Your task to perform on an android device: add a contact in the contacts app Image 0: 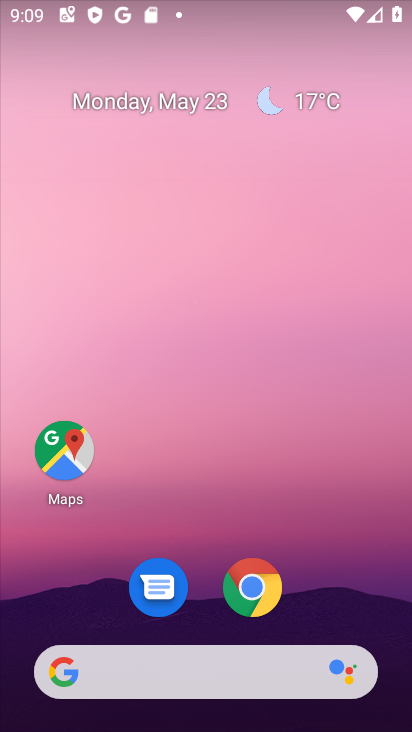
Step 0: drag from (241, 511) to (349, 26)
Your task to perform on an android device: add a contact in the contacts app Image 1: 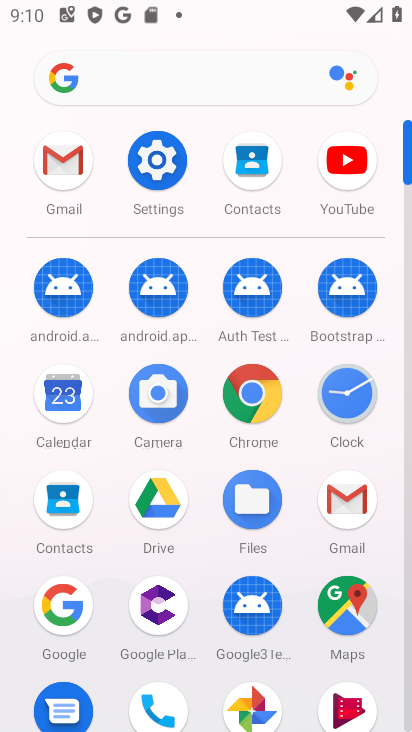
Step 1: click (252, 169)
Your task to perform on an android device: add a contact in the contacts app Image 2: 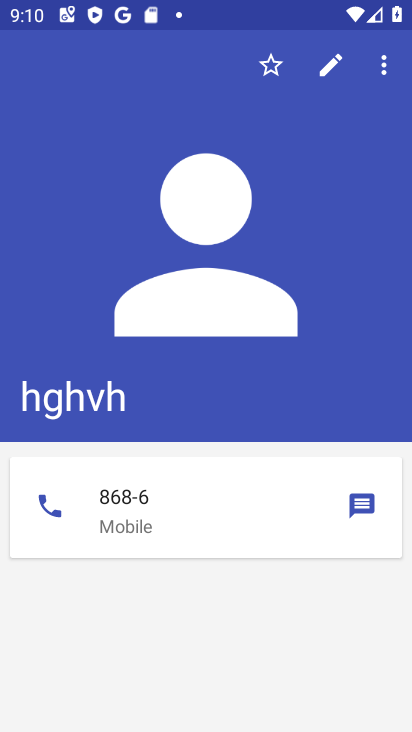
Step 2: press back button
Your task to perform on an android device: add a contact in the contacts app Image 3: 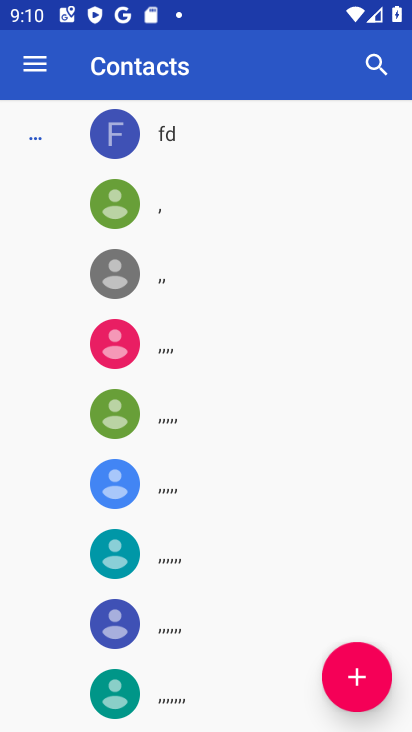
Step 3: click (350, 690)
Your task to perform on an android device: add a contact in the contacts app Image 4: 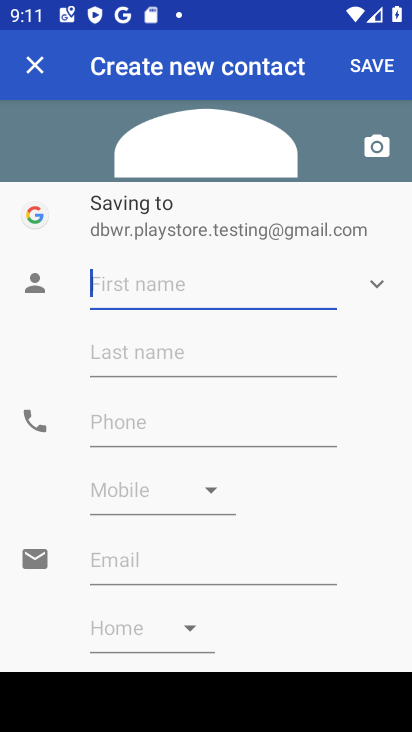
Step 4: type "gbgb"
Your task to perform on an android device: add a contact in the contacts app Image 5: 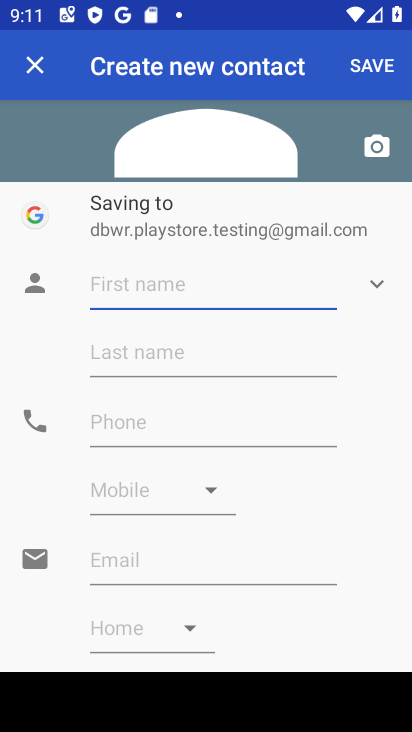
Step 5: click (118, 428)
Your task to perform on an android device: add a contact in the contacts app Image 6: 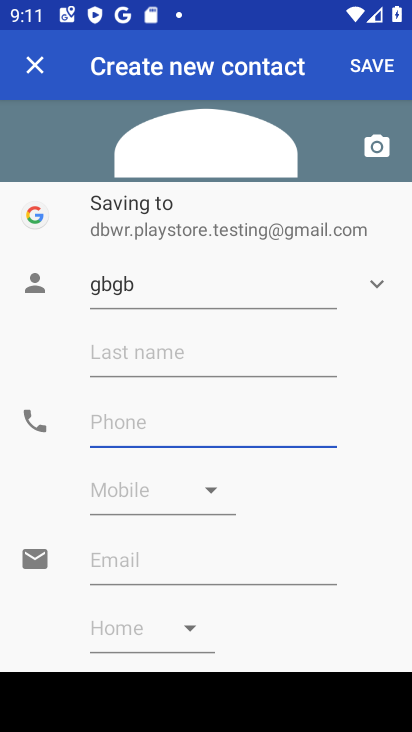
Step 6: type "676767"
Your task to perform on an android device: add a contact in the contacts app Image 7: 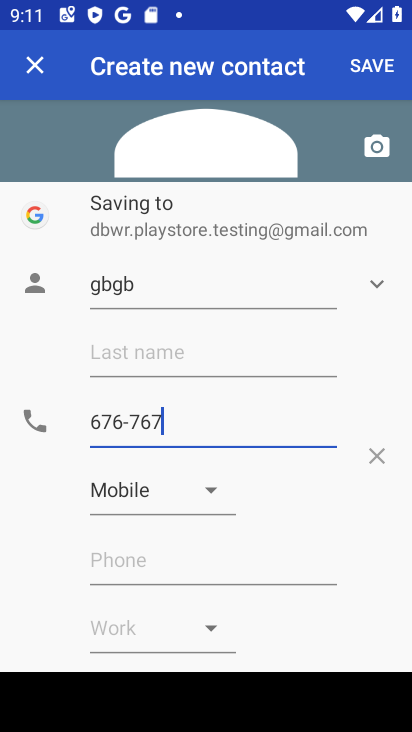
Step 7: click (359, 67)
Your task to perform on an android device: add a contact in the contacts app Image 8: 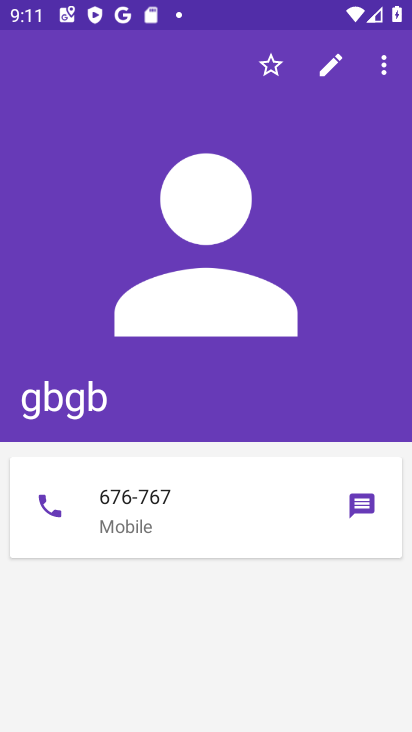
Step 8: task complete